Your task to perform on an android device: open wifi settings Image 0: 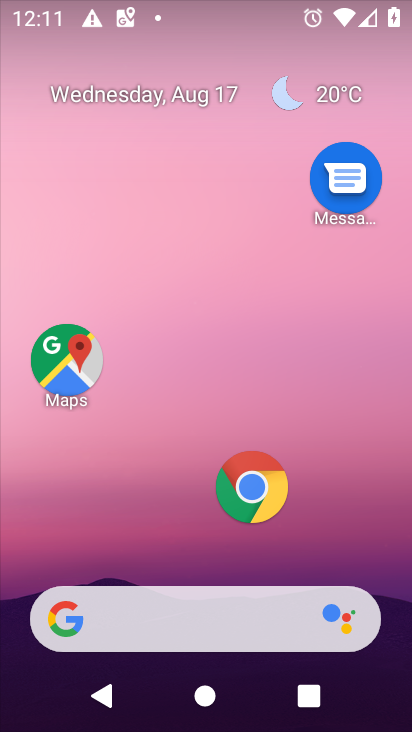
Step 0: drag from (143, 5) to (210, 400)
Your task to perform on an android device: open wifi settings Image 1: 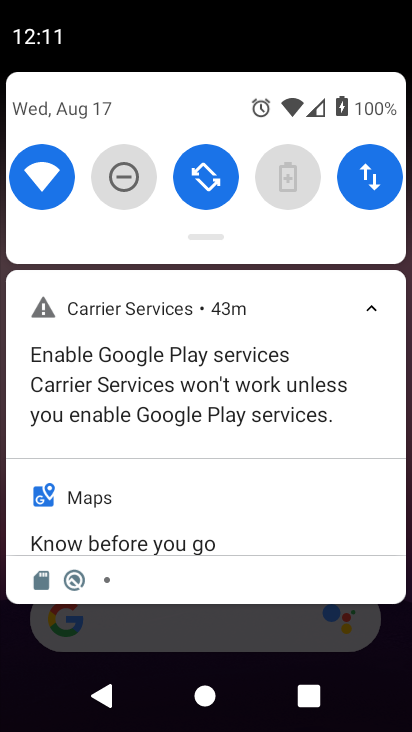
Step 1: click (55, 175)
Your task to perform on an android device: open wifi settings Image 2: 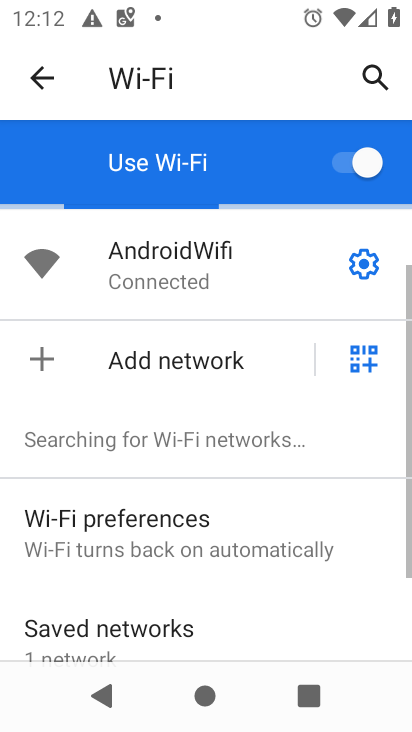
Step 2: task complete